Your task to perform on an android device: Open Google Chrome Image 0: 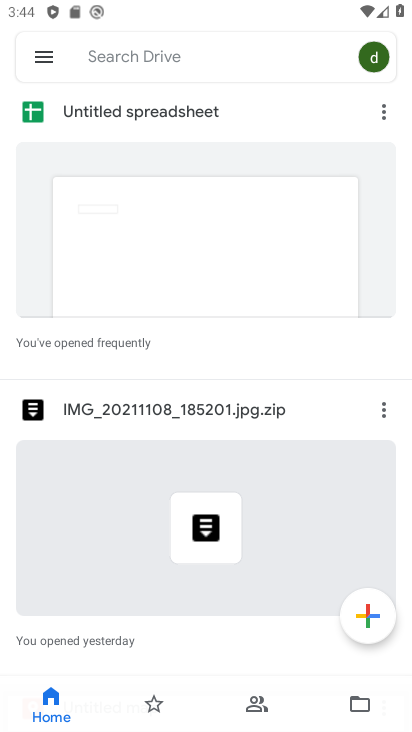
Step 0: press back button
Your task to perform on an android device: Open Google Chrome Image 1: 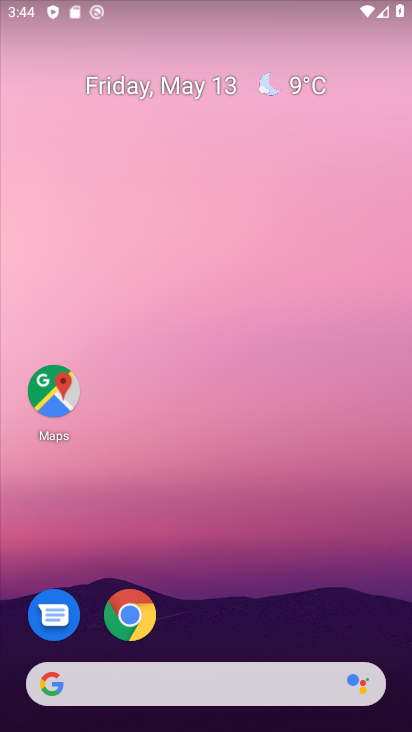
Step 1: click (118, 619)
Your task to perform on an android device: Open Google Chrome Image 2: 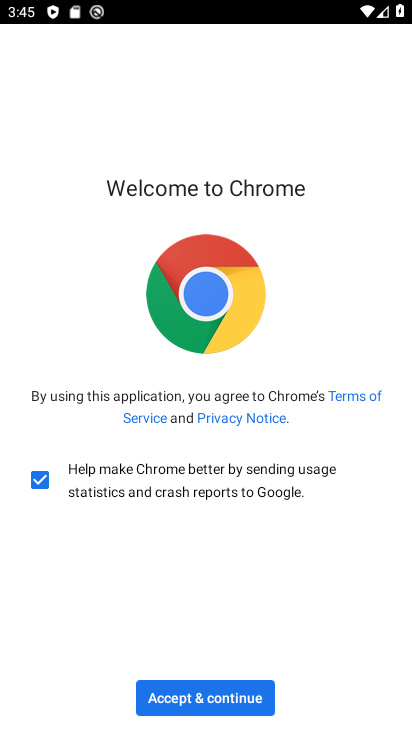
Step 2: task complete